Your task to perform on an android device: change alarm snooze length Image 0: 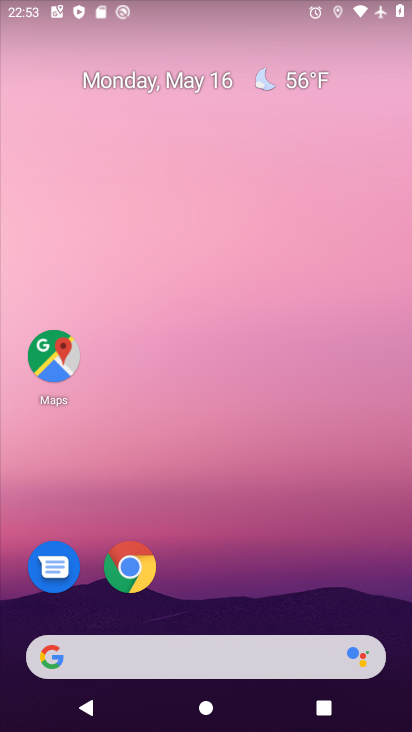
Step 0: drag from (246, 573) to (303, 223)
Your task to perform on an android device: change alarm snooze length Image 1: 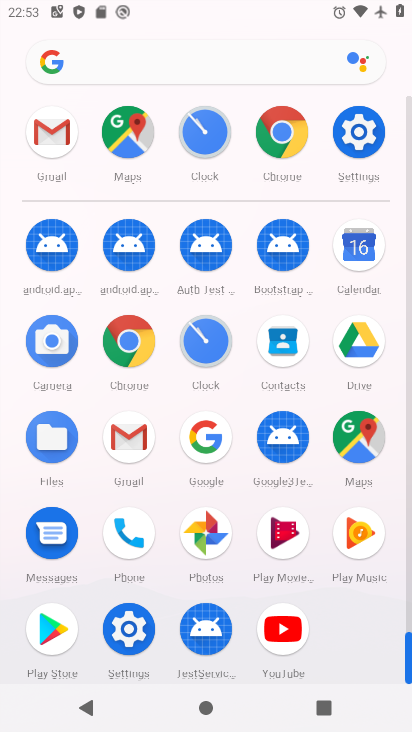
Step 1: click (189, 337)
Your task to perform on an android device: change alarm snooze length Image 2: 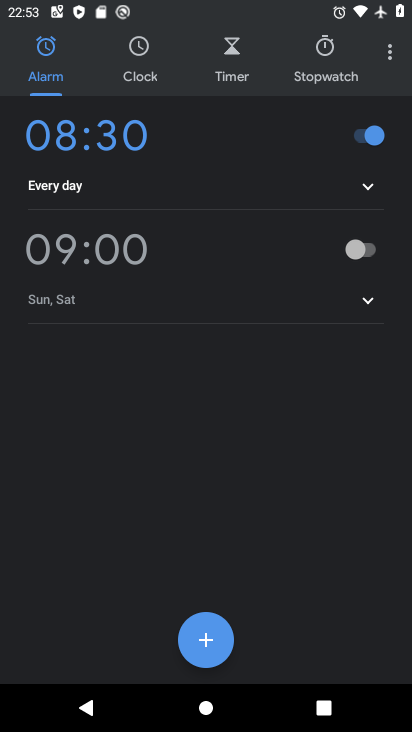
Step 2: click (387, 45)
Your task to perform on an android device: change alarm snooze length Image 3: 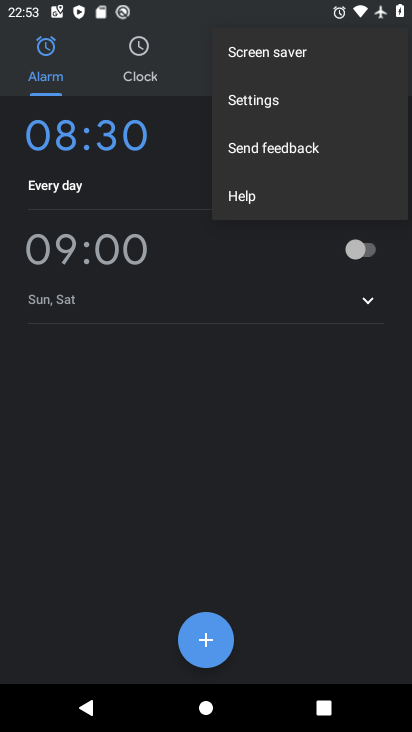
Step 3: click (275, 97)
Your task to perform on an android device: change alarm snooze length Image 4: 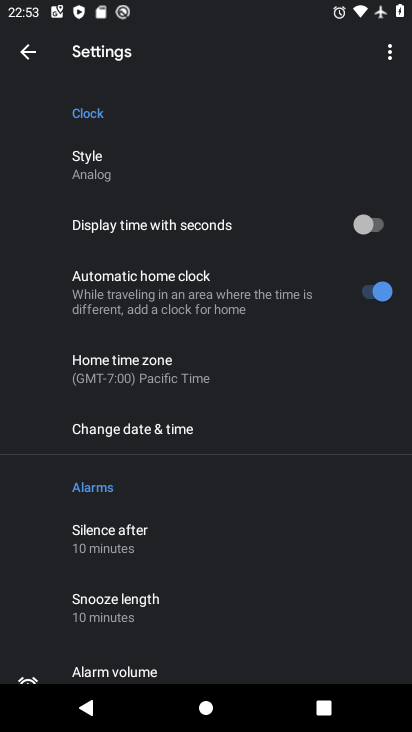
Step 4: click (148, 596)
Your task to perform on an android device: change alarm snooze length Image 5: 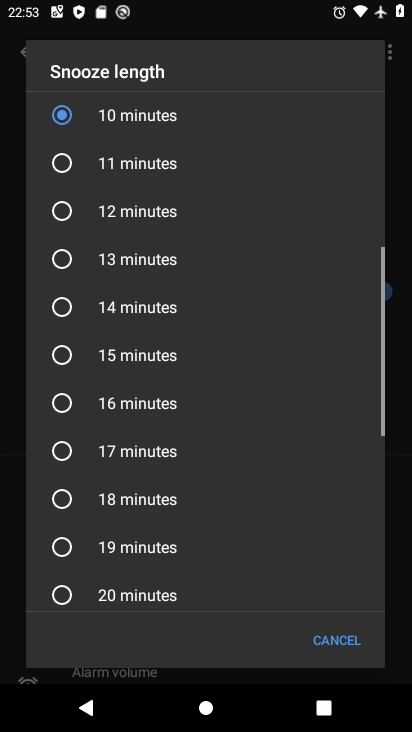
Step 5: click (109, 461)
Your task to perform on an android device: change alarm snooze length Image 6: 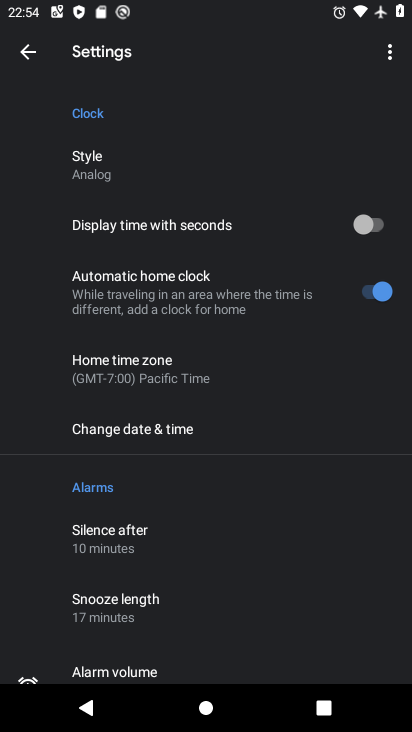
Step 6: task complete